Your task to perform on an android device: turn notification dots on Image 0: 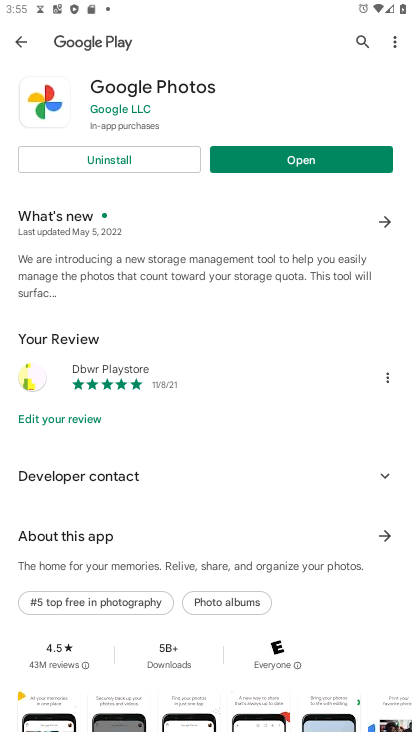
Step 0: press home button
Your task to perform on an android device: turn notification dots on Image 1: 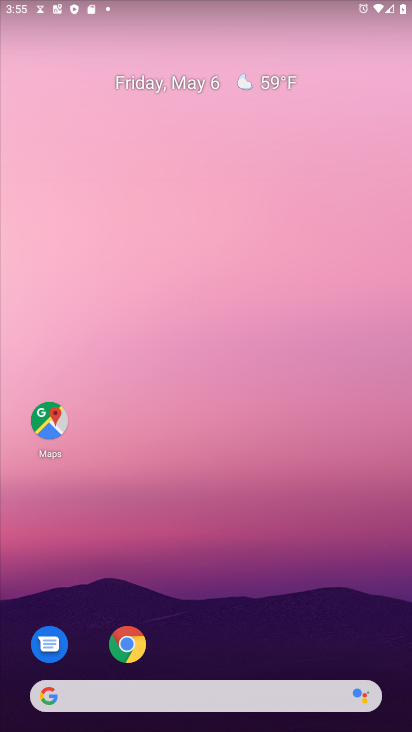
Step 1: drag from (226, 603) to (208, 39)
Your task to perform on an android device: turn notification dots on Image 2: 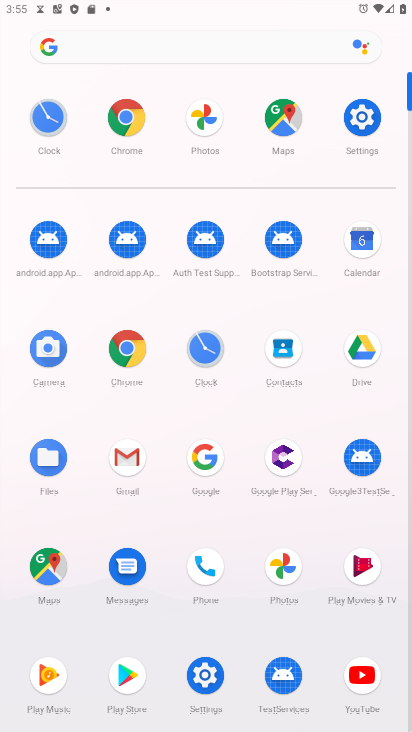
Step 2: click (204, 676)
Your task to perform on an android device: turn notification dots on Image 3: 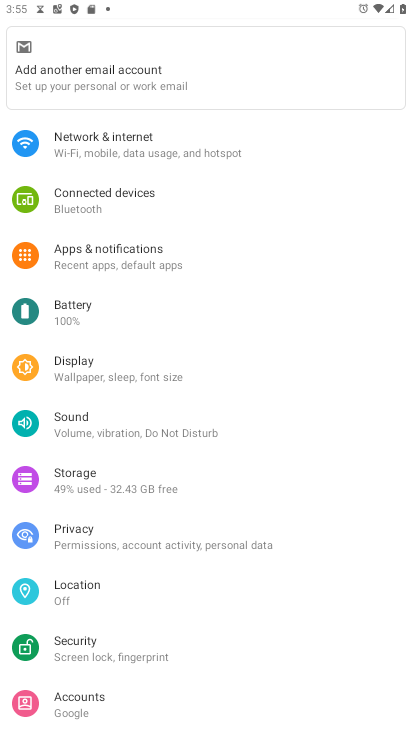
Step 3: click (119, 250)
Your task to perform on an android device: turn notification dots on Image 4: 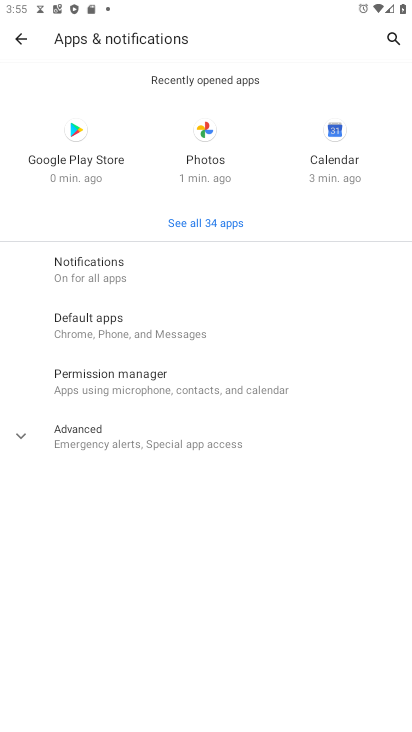
Step 4: click (98, 259)
Your task to perform on an android device: turn notification dots on Image 5: 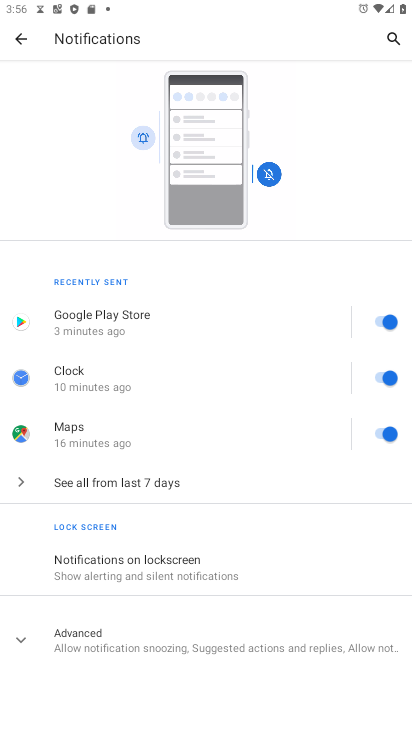
Step 5: click (150, 641)
Your task to perform on an android device: turn notification dots on Image 6: 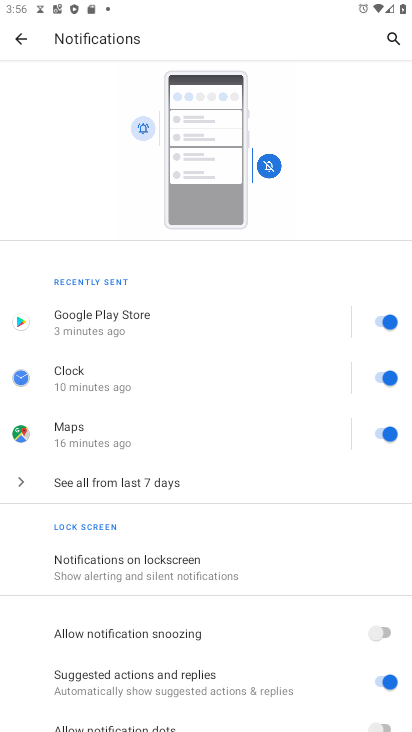
Step 6: drag from (194, 653) to (223, 496)
Your task to perform on an android device: turn notification dots on Image 7: 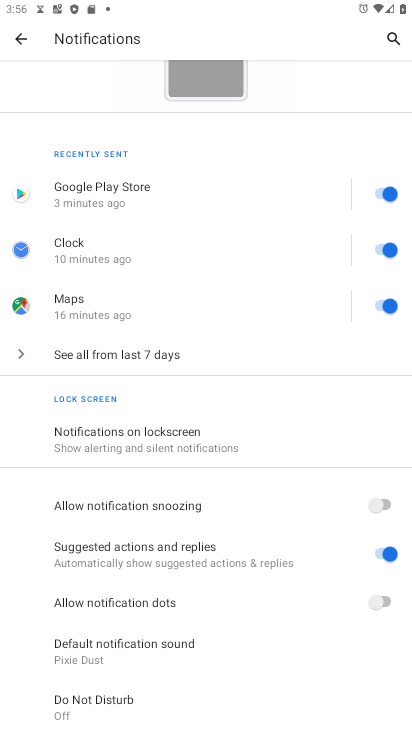
Step 7: click (378, 604)
Your task to perform on an android device: turn notification dots on Image 8: 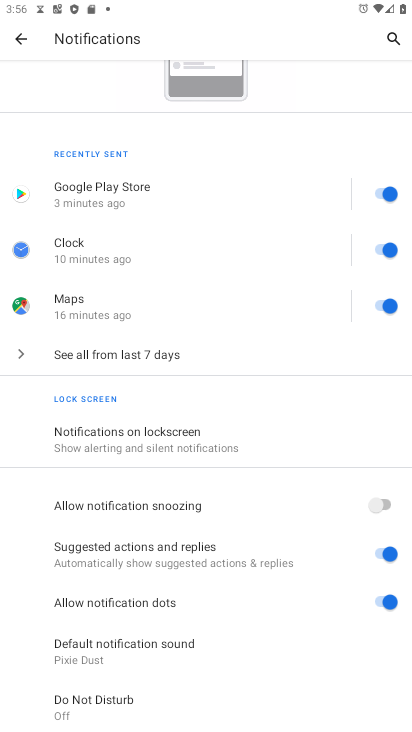
Step 8: task complete